Your task to perform on an android device: Open location settings Image 0: 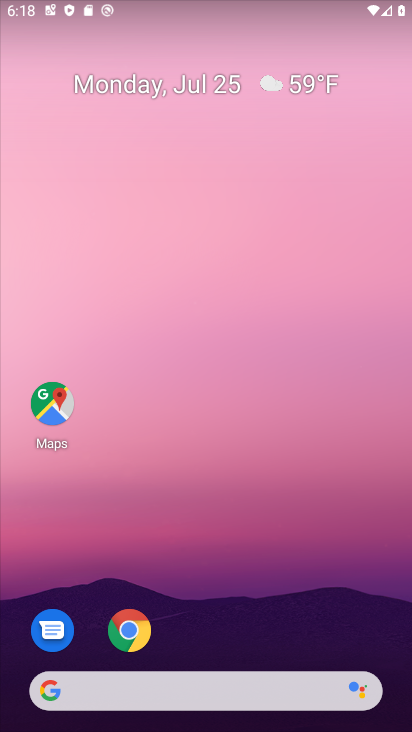
Step 0: drag from (196, 592) to (210, 274)
Your task to perform on an android device: Open location settings Image 1: 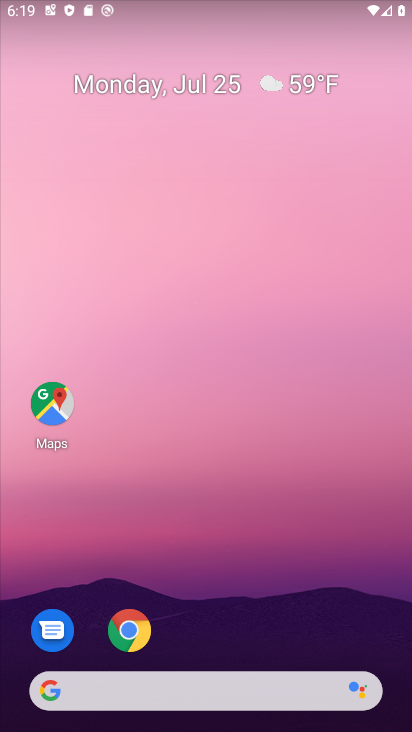
Step 1: drag from (219, 385) to (244, 89)
Your task to perform on an android device: Open location settings Image 2: 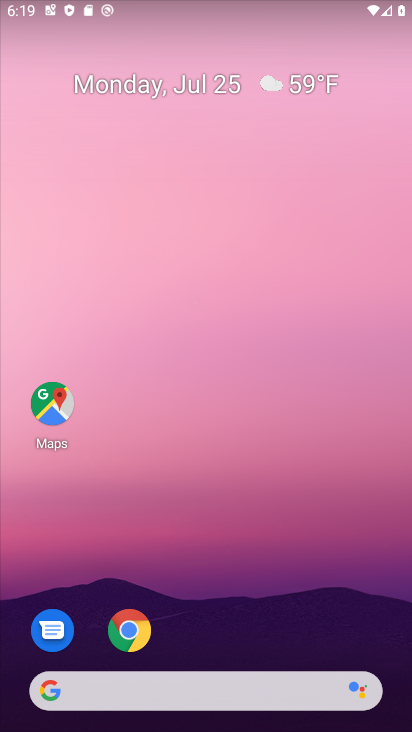
Step 2: drag from (225, 576) to (260, 76)
Your task to perform on an android device: Open location settings Image 3: 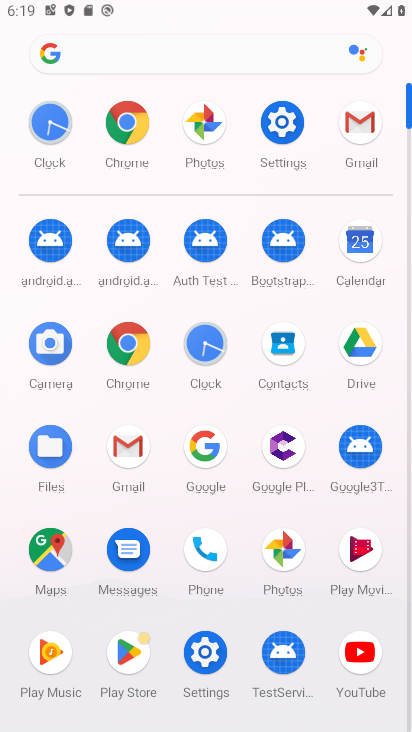
Step 3: click (207, 654)
Your task to perform on an android device: Open location settings Image 4: 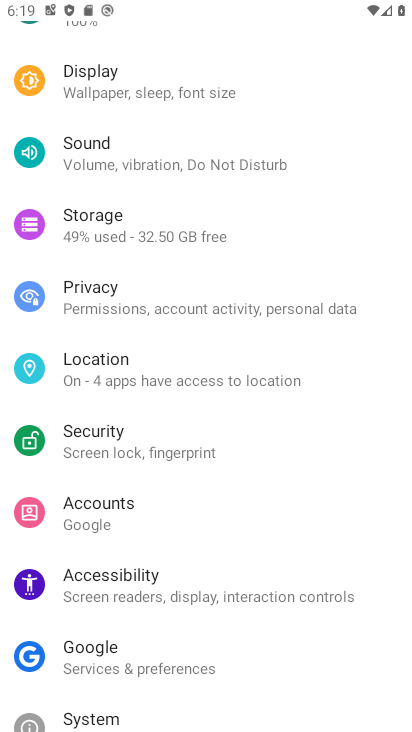
Step 4: click (127, 372)
Your task to perform on an android device: Open location settings Image 5: 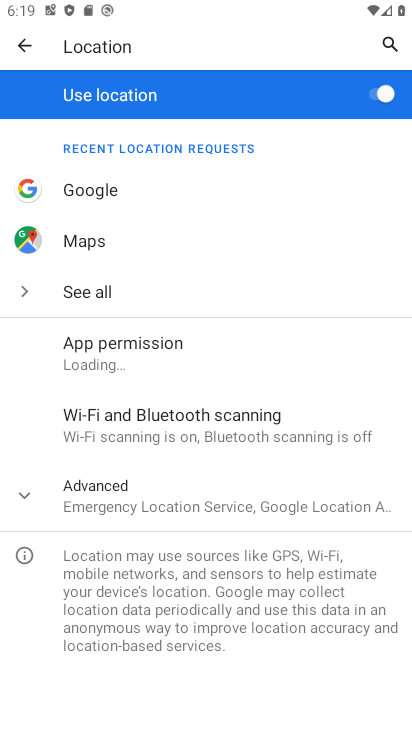
Step 5: task complete